Your task to perform on an android device: turn on improve location accuracy Image 0: 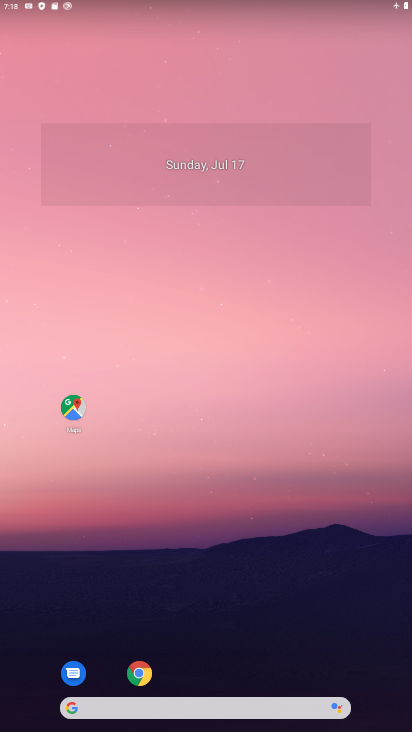
Step 0: drag from (242, 633) to (111, 12)
Your task to perform on an android device: turn on improve location accuracy Image 1: 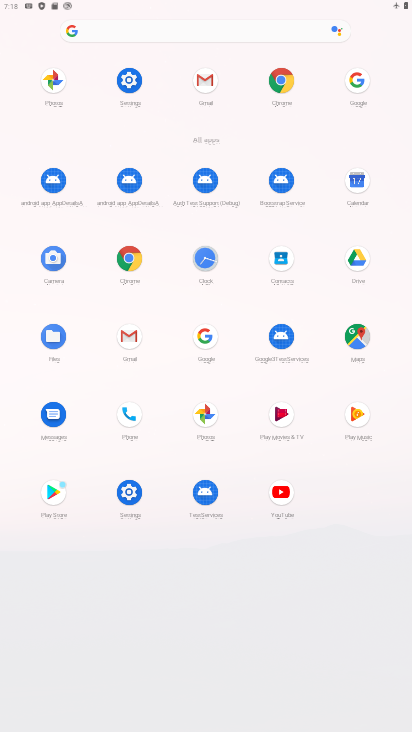
Step 1: click (127, 78)
Your task to perform on an android device: turn on improve location accuracy Image 2: 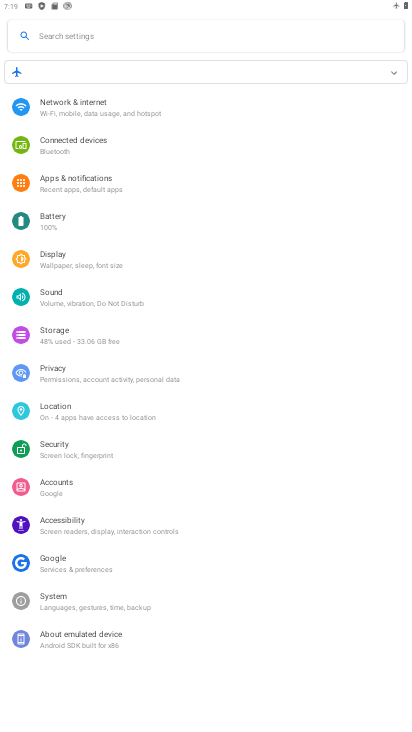
Step 2: click (56, 409)
Your task to perform on an android device: turn on improve location accuracy Image 3: 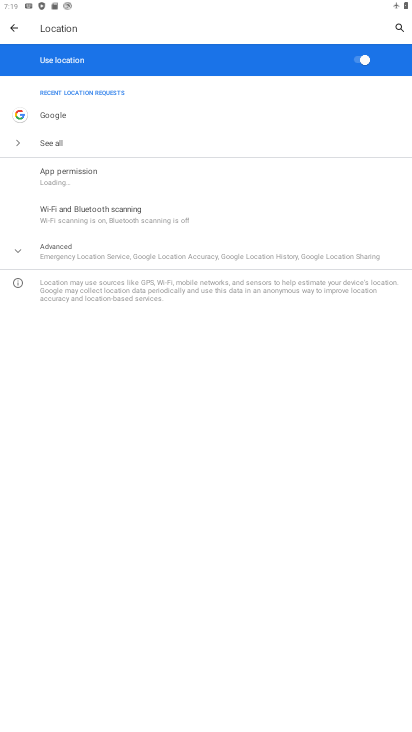
Step 3: click (44, 247)
Your task to perform on an android device: turn on improve location accuracy Image 4: 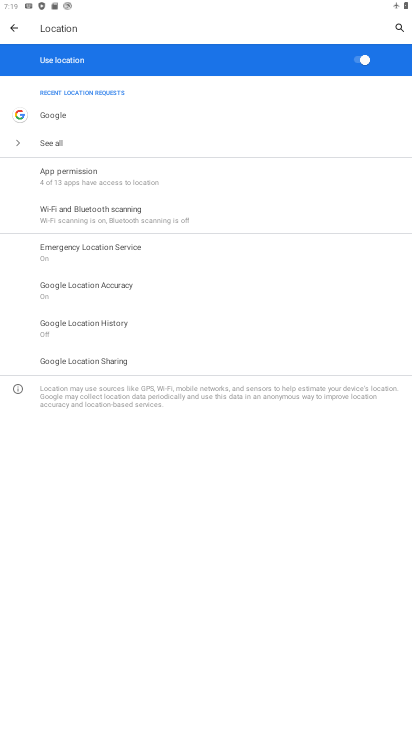
Step 4: click (109, 288)
Your task to perform on an android device: turn on improve location accuracy Image 5: 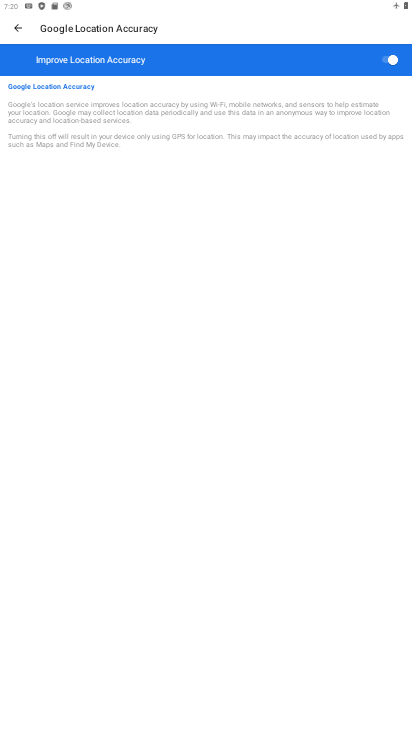
Step 5: task complete